Your task to perform on an android device: Open network settings Image 0: 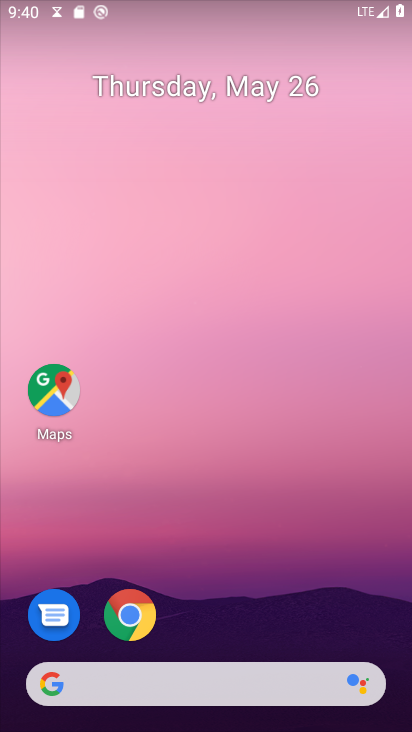
Step 0: drag from (243, 616) to (246, 221)
Your task to perform on an android device: Open network settings Image 1: 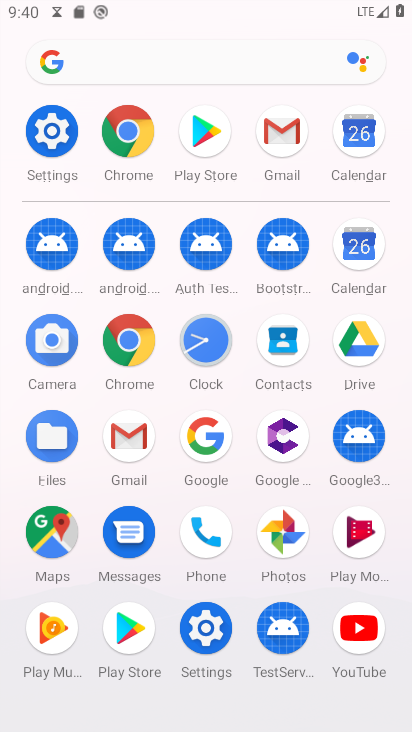
Step 1: click (56, 121)
Your task to perform on an android device: Open network settings Image 2: 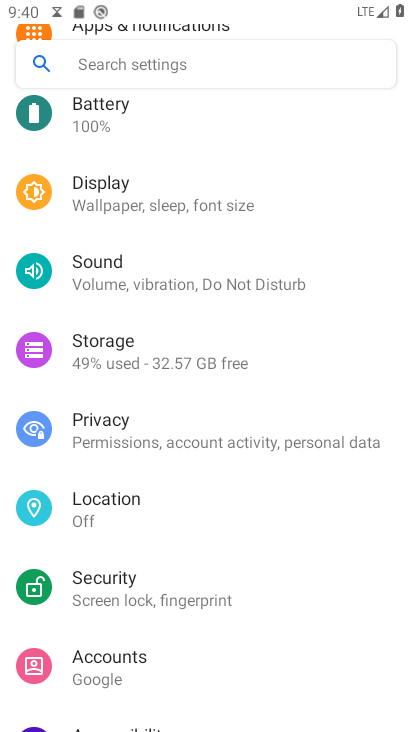
Step 2: drag from (286, 139) to (280, 605)
Your task to perform on an android device: Open network settings Image 3: 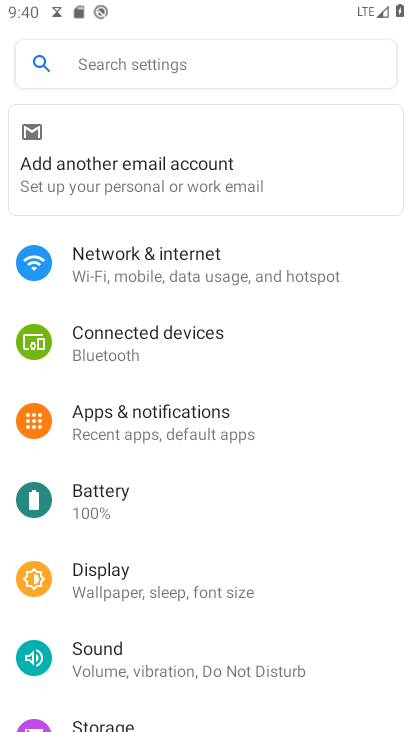
Step 3: click (146, 253)
Your task to perform on an android device: Open network settings Image 4: 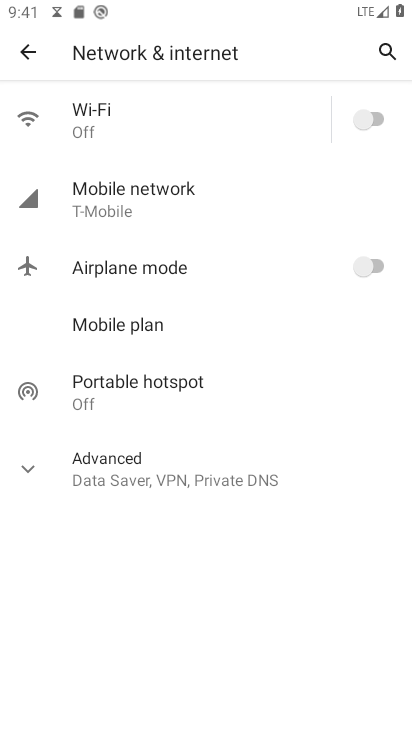
Step 4: task complete